Your task to perform on an android device: Open the map Image 0: 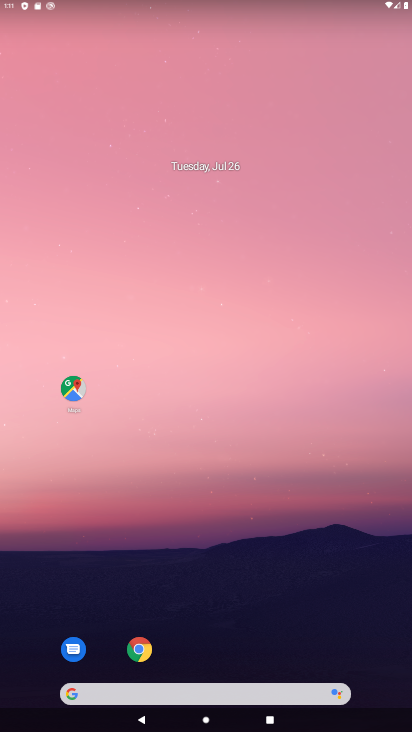
Step 0: click (67, 388)
Your task to perform on an android device: Open the map Image 1: 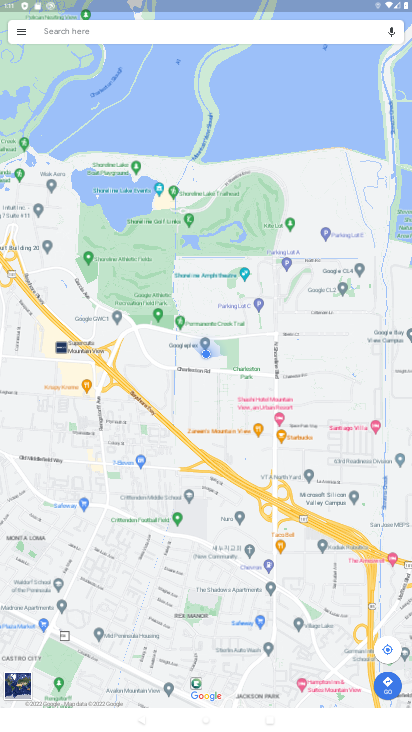
Step 1: task complete